Your task to perform on an android device: check android version Image 0: 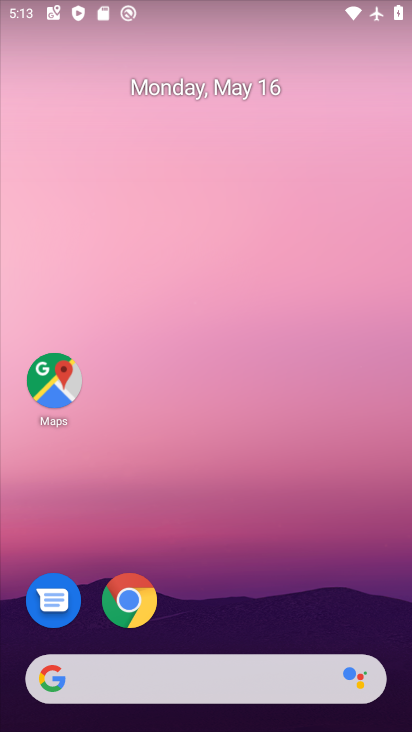
Step 0: drag from (229, 645) to (161, 65)
Your task to perform on an android device: check android version Image 1: 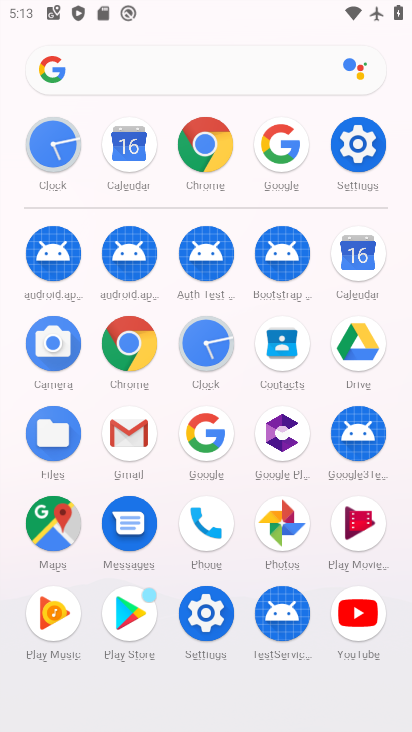
Step 1: click (370, 140)
Your task to perform on an android device: check android version Image 2: 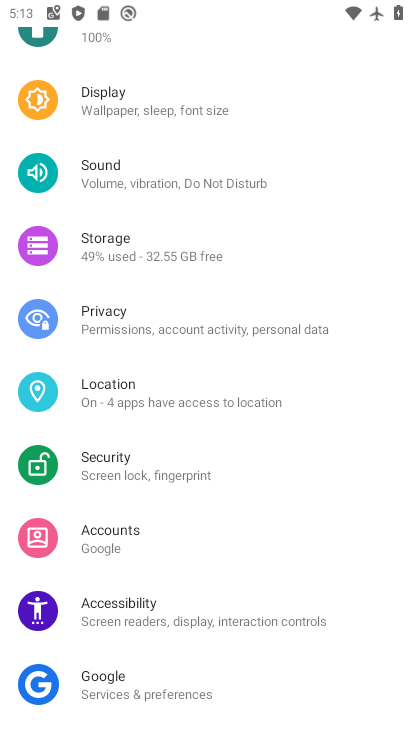
Step 2: drag from (243, 624) to (212, 142)
Your task to perform on an android device: check android version Image 3: 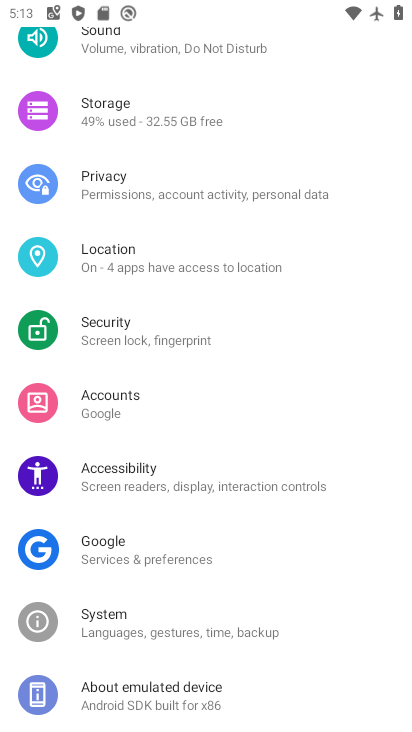
Step 3: click (108, 679)
Your task to perform on an android device: check android version Image 4: 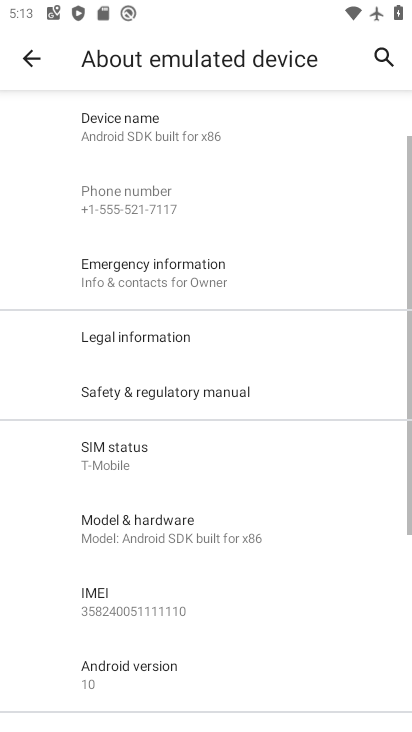
Step 4: click (157, 689)
Your task to perform on an android device: check android version Image 5: 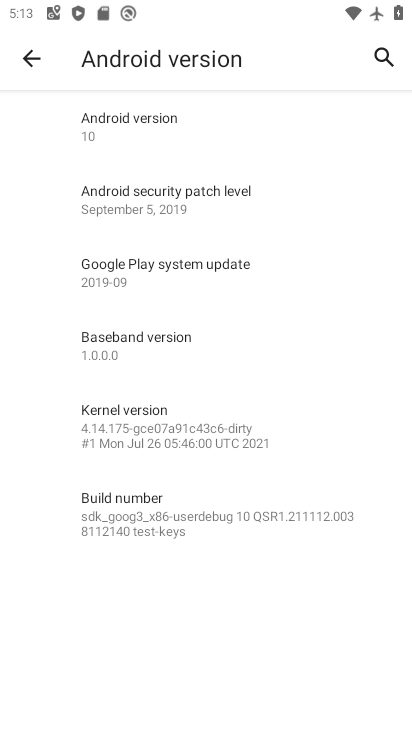
Step 5: task complete